Your task to perform on an android device: turn pop-ups on in chrome Image 0: 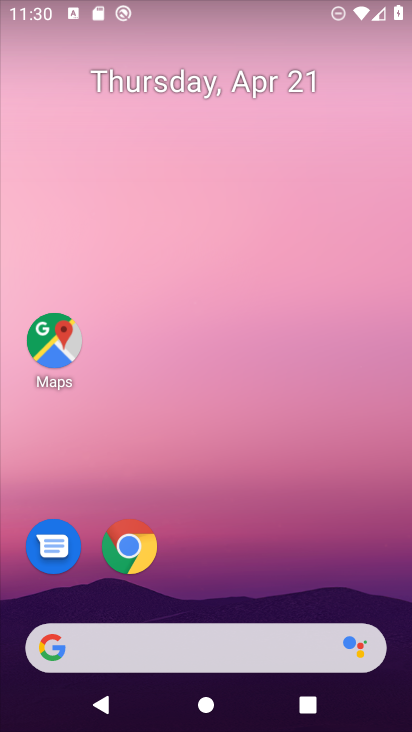
Step 0: click (123, 552)
Your task to perform on an android device: turn pop-ups on in chrome Image 1: 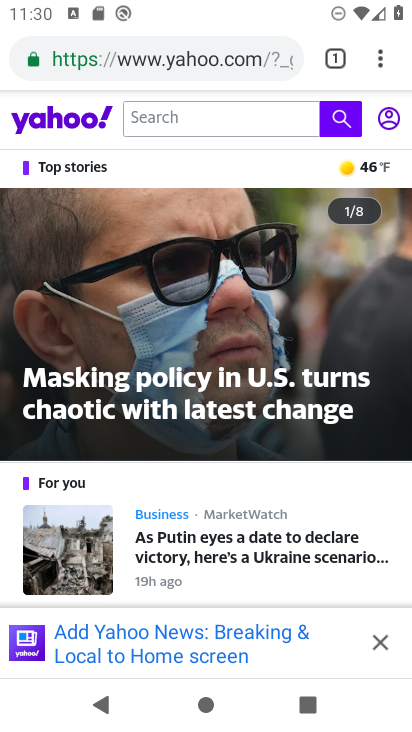
Step 1: click (380, 64)
Your task to perform on an android device: turn pop-ups on in chrome Image 2: 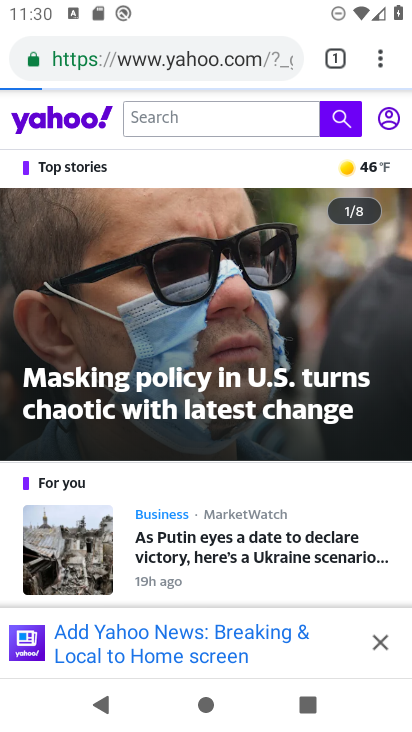
Step 2: click (380, 64)
Your task to perform on an android device: turn pop-ups on in chrome Image 3: 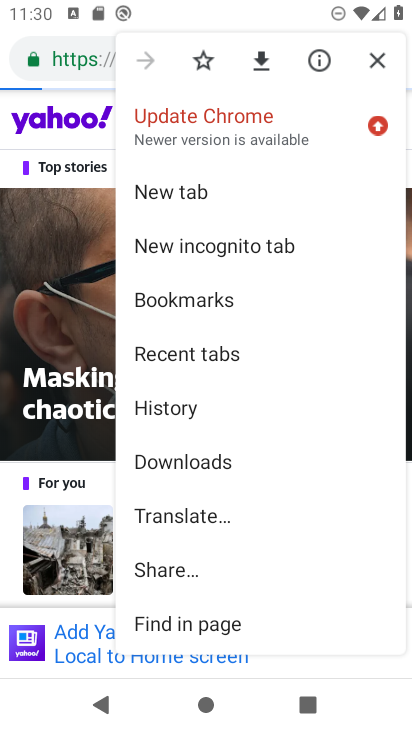
Step 3: drag from (229, 561) to (233, 171)
Your task to perform on an android device: turn pop-ups on in chrome Image 4: 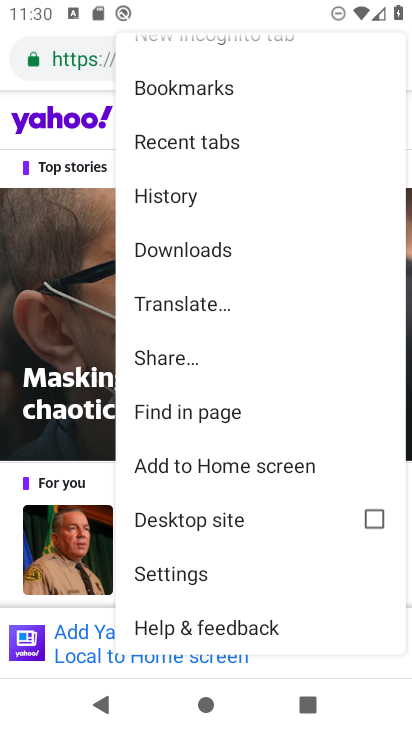
Step 4: click (181, 577)
Your task to perform on an android device: turn pop-ups on in chrome Image 5: 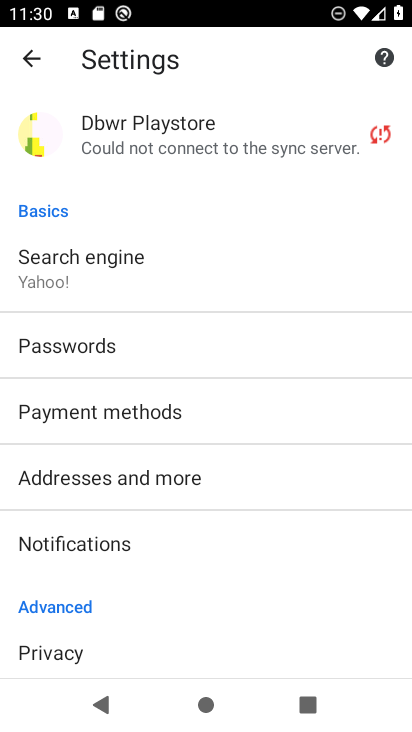
Step 5: drag from (220, 597) to (230, 193)
Your task to perform on an android device: turn pop-ups on in chrome Image 6: 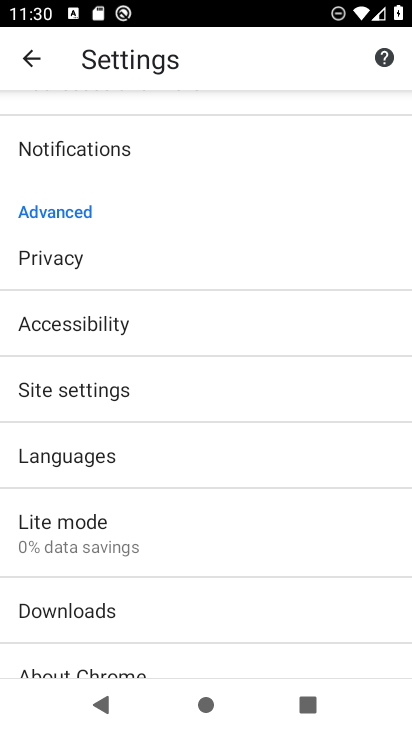
Step 6: click (39, 394)
Your task to perform on an android device: turn pop-ups on in chrome Image 7: 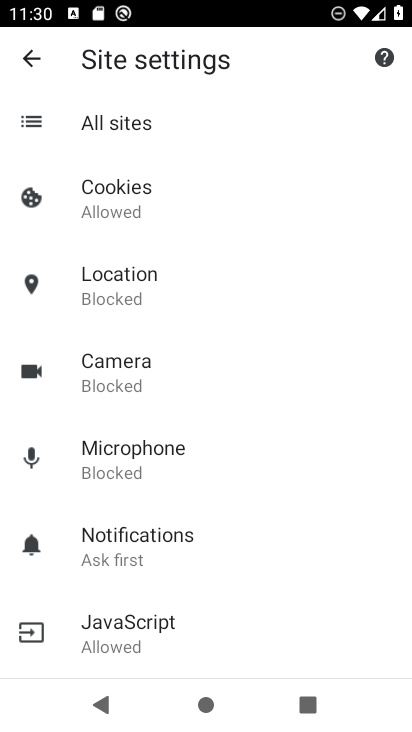
Step 7: drag from (227, 635) to (211, 327)
Your task to perform on an android device: turn pop-ups on in chrome Image 8: 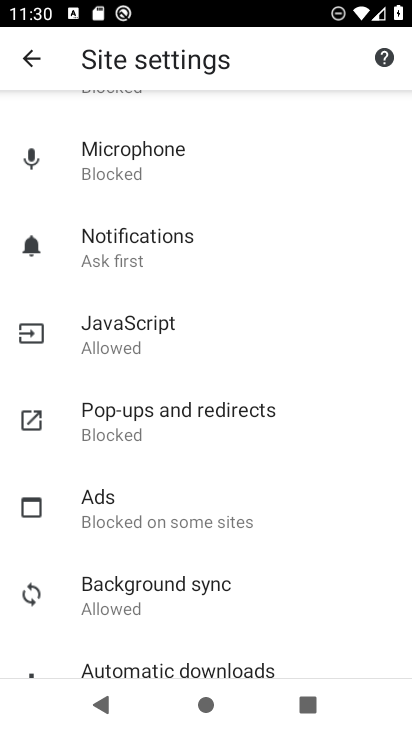
Step 8: click (135, 418)
Your task to perform on an android device: turn pop-ups on in chrome Image 9: 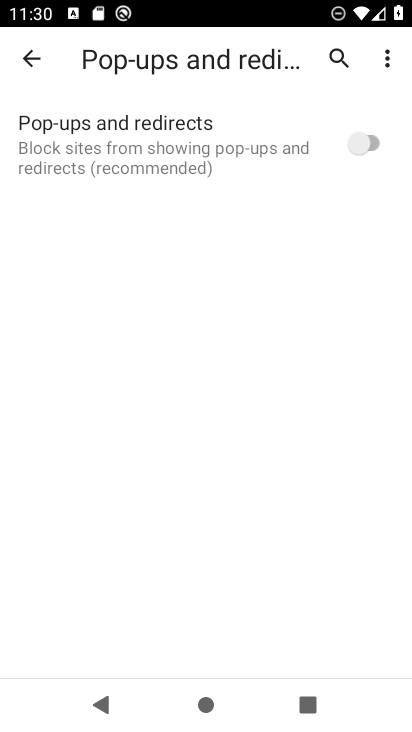
Step 9: click (370, 142)
Your task to perform on an android device: turn pop-ups on in chrome Image 10: 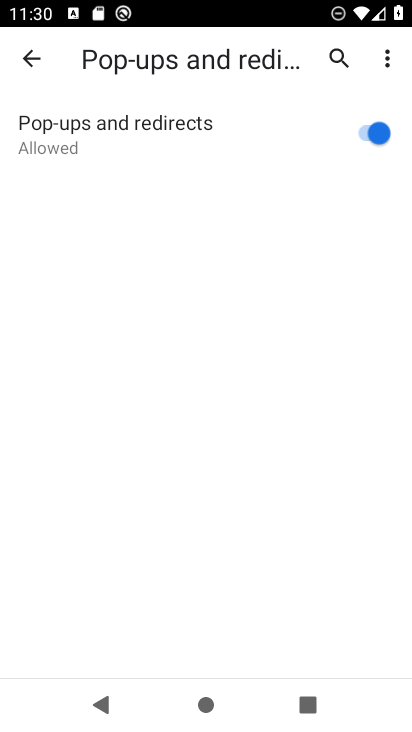
Step 10: task complete